Your task to perform on an android device: snooze an email in the gmail app Image 0: 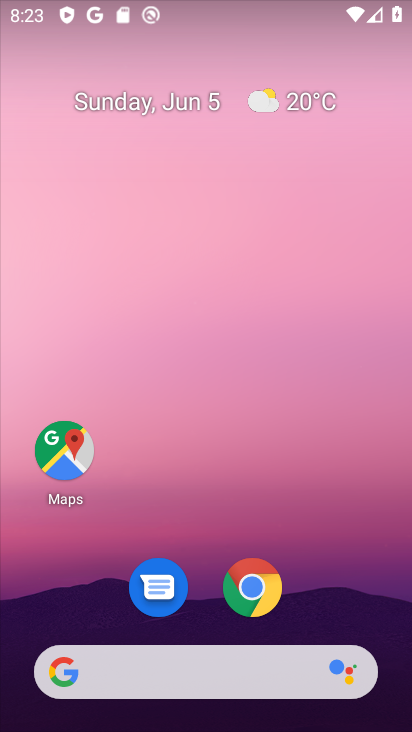
Step 0: drag from (336, 604) to (208, 13)
Your task to perform on an android device: snooze an email in the gmail app Image 1: 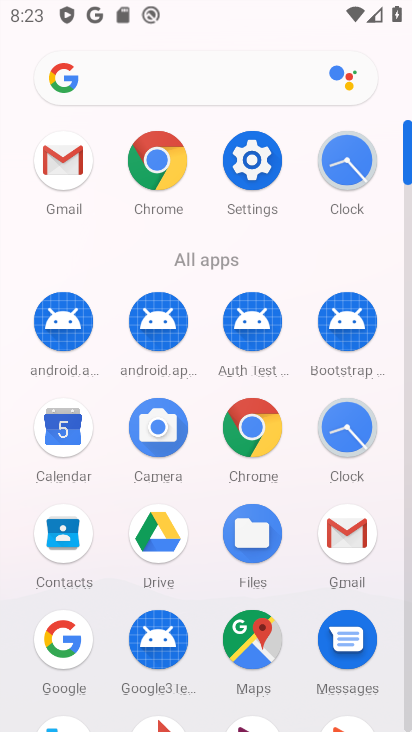
Step 1: click (366, 526)
Your task to perform on an android device: snooze an email in the gmail app Image 2: 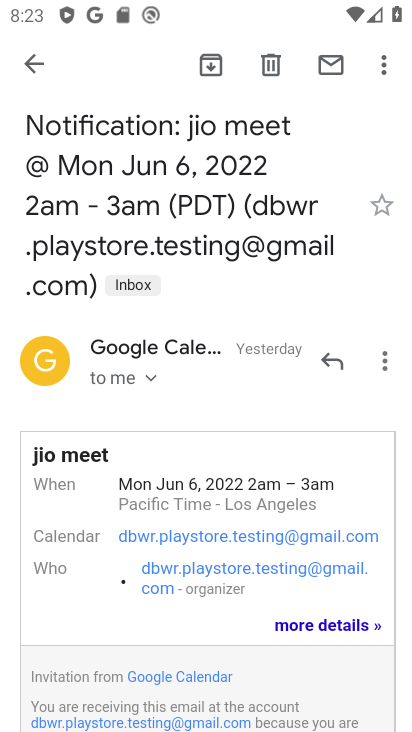
Step 2: click (37, 68)
Your task to perform on an android device: snooze an email in the gmail app Image 3: 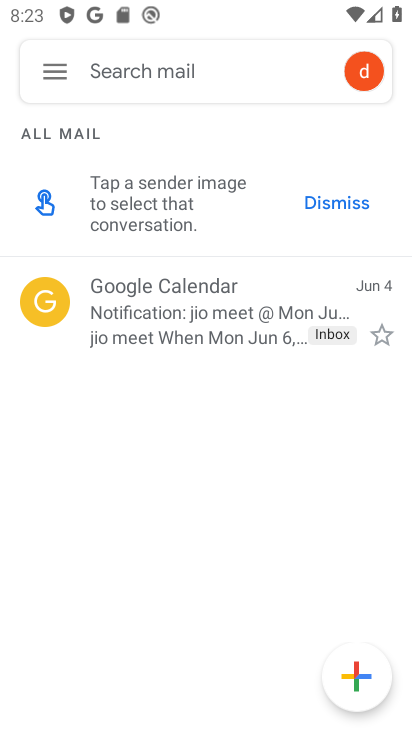
Step 3: click (333, 298)
Your task to perform on an android device: snooze an email in the gmail app Image 4: 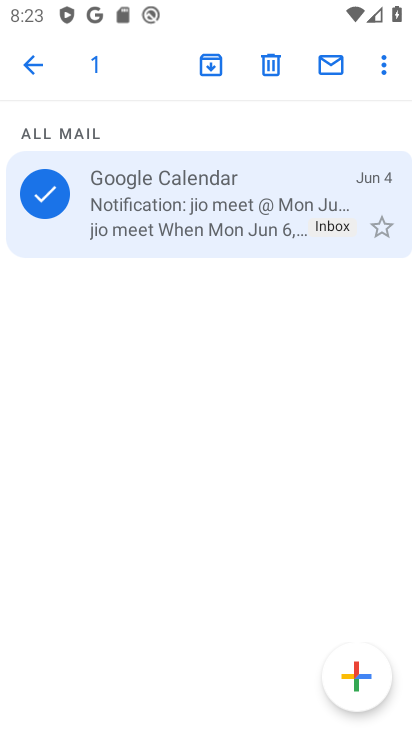
Step 4: click (382, 60)
Your task to perform on an android device: snooze an email in the gmail app Image 5: 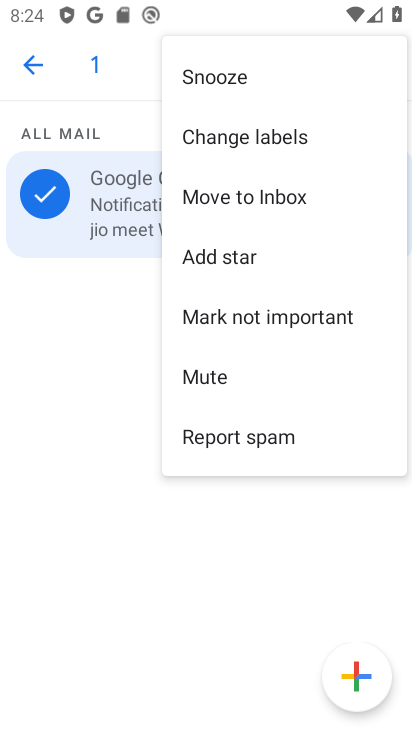
Step 5: click (216, 71)
Your task to perform on an android device: snooze an email in the gmail app Image 6: 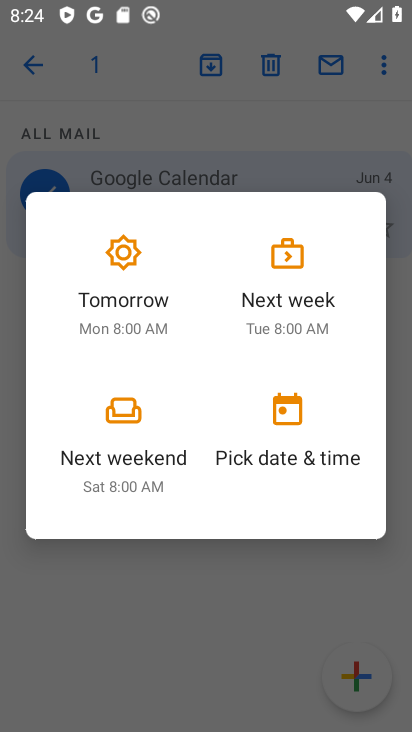
Step 6: click (289, 307)
Your task to perform on an android device: snooze an email in the gmail app Image 7: 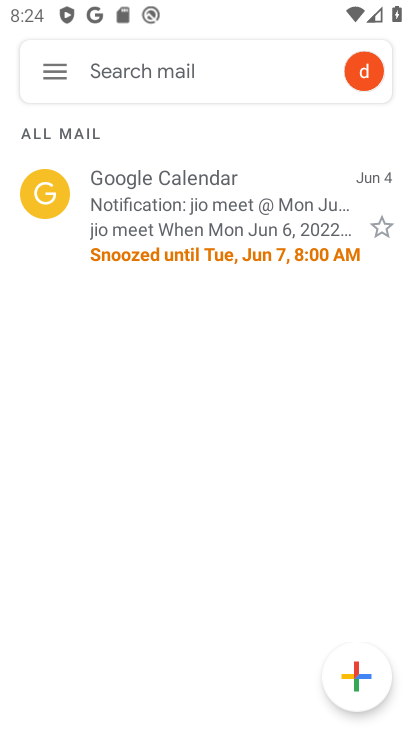
Step 7: task complete